Your task to perform on an android device: set the timer Image 0: 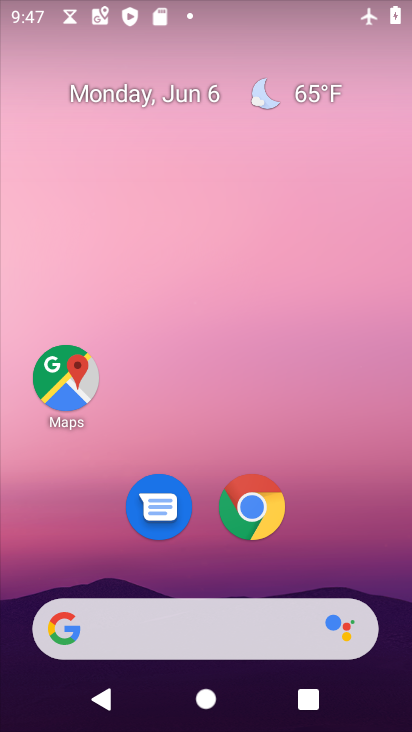
Step 0: drag from (290, 524) to (312, 206)
Your task to perform on an android device: set the timer Image 1: 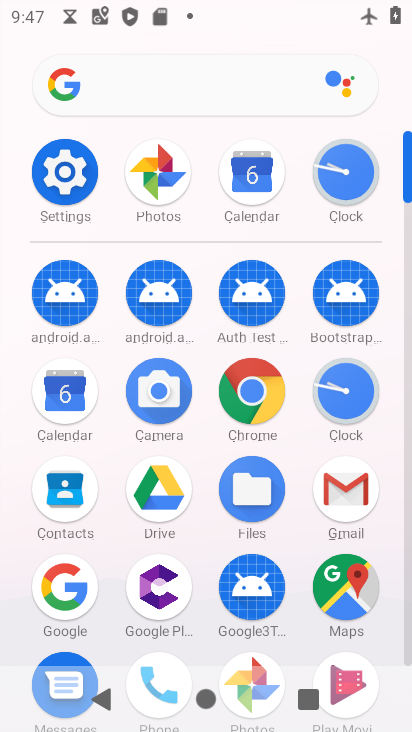
Step 1: click (330, 155)
Your task to perform on an android device: set the timer Image 2: 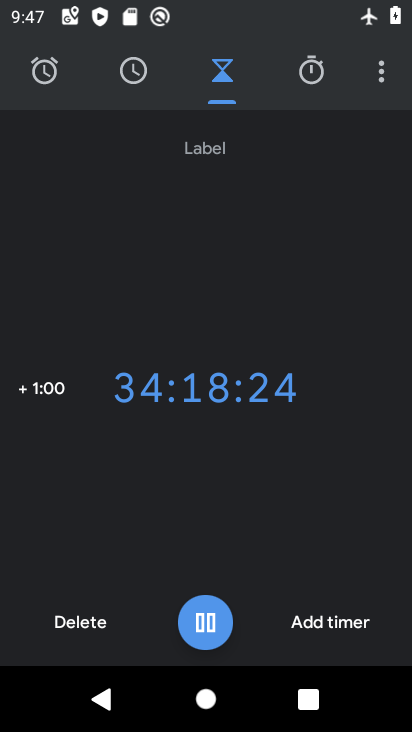
Step 2: click (311, 616)
Your task to perform on an android device: set the timer Image 3: 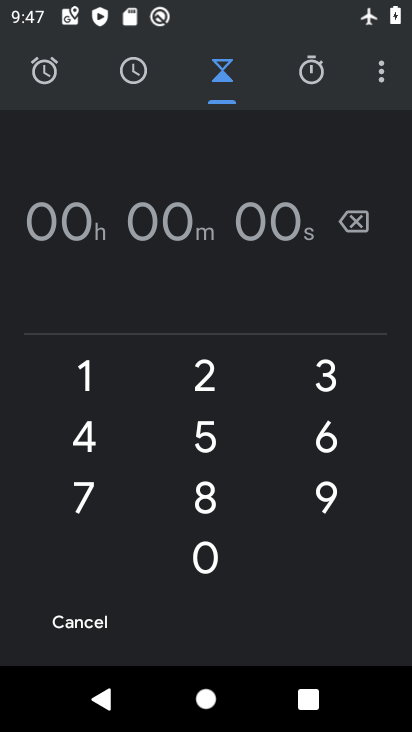
Step 3: click (133, 242)
Your task to perform on an android device: set the timer Image 4: 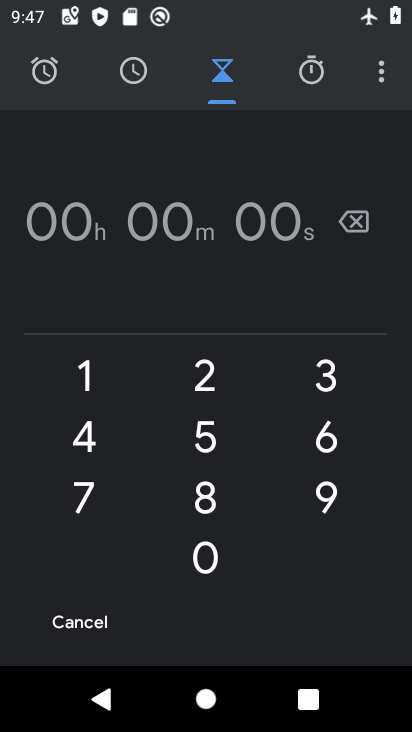
Step 4: type "345678"
Your task to perform on an android device: set the timer Image 5: 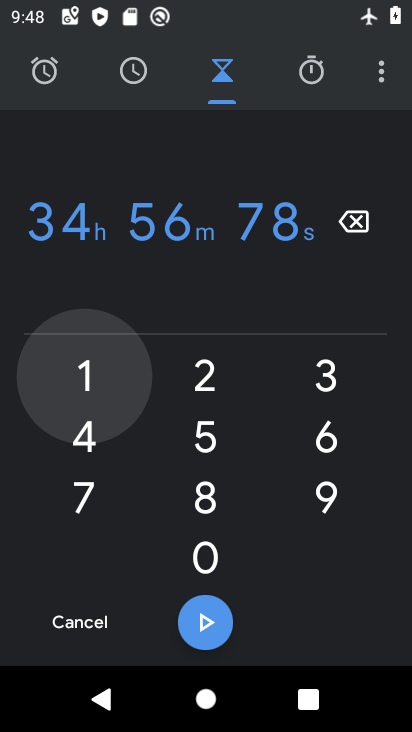
Step 5: task complete